Your task to perform on an android device: Turn off the flashlight Image 0: 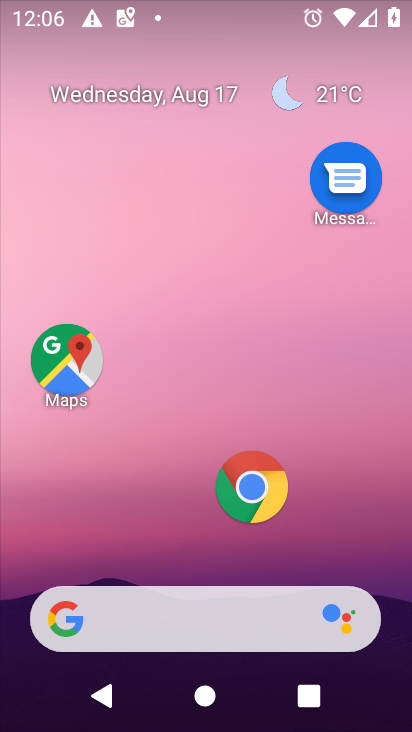
Step 0: drag from (168, 409) to (270, 0)
Your task to perform on an android device: Turn off the flashlight Image 1: 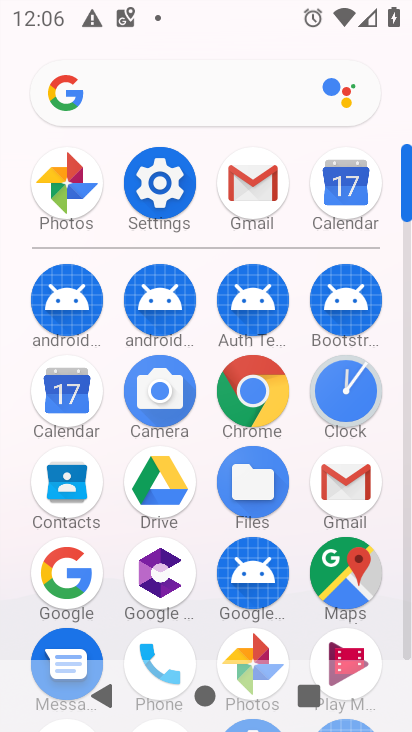
Step 1: click (175, 185)
Your task to perform on an android device: Turn off the flashlight Image 2: 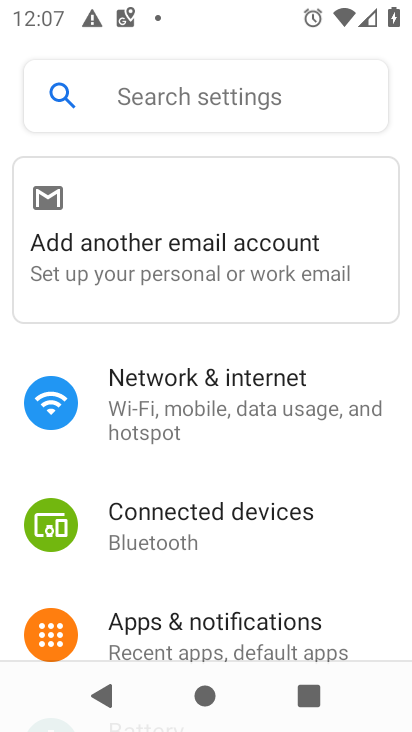
Step 2: click (205, 94)
Your task to perform on an android device: Turn off the flashlight Image 3: 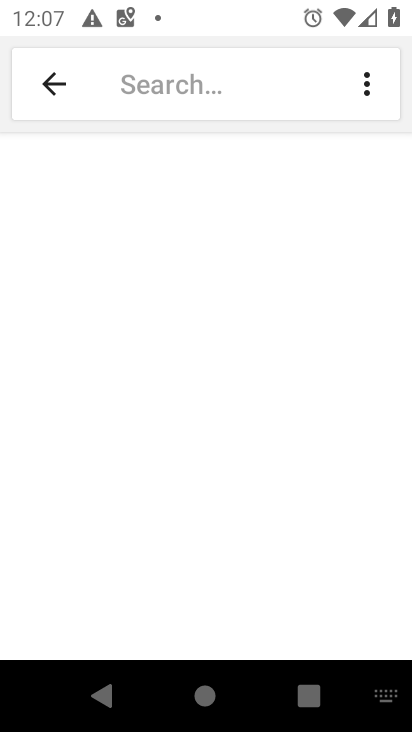
Step 3: type "flashlight"
Your task to perform on an android device: Turn off the flashlight Image 4: 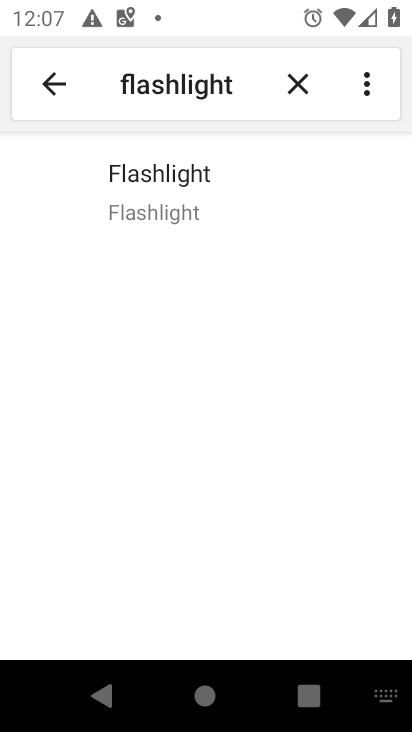
Step 4: click (135, 182)
Your task to perform on an android device: Turn off the flashlight Image 5: 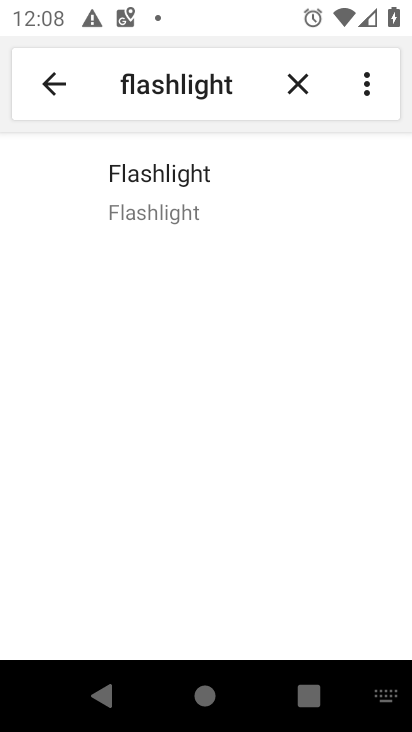
Step 5: task complete